Your task to perform on an android device: Go to display settings Image 0: 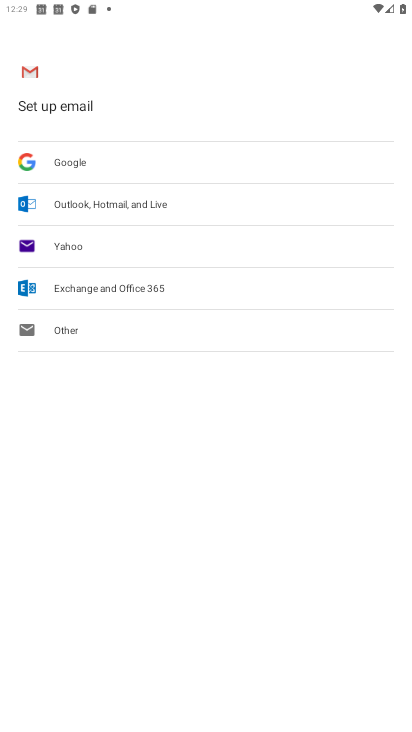
Step 0: press home button
Your task to perform on an android device: Go to display settings Image 1: 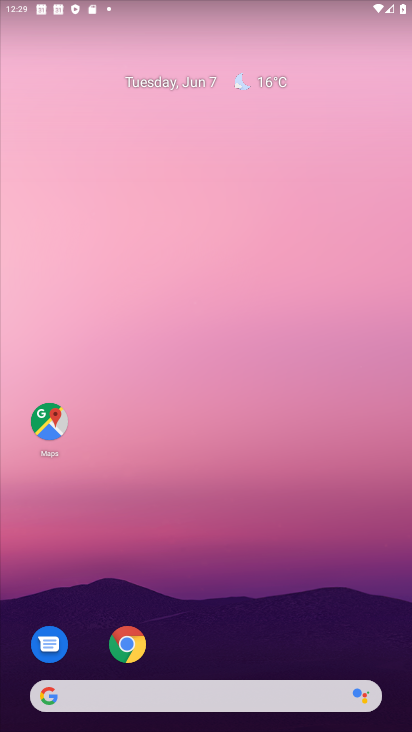
Step 1: drag from (249, 511) to (60, 0)
Your task to perform on an android device: Go to display settings Image 2: 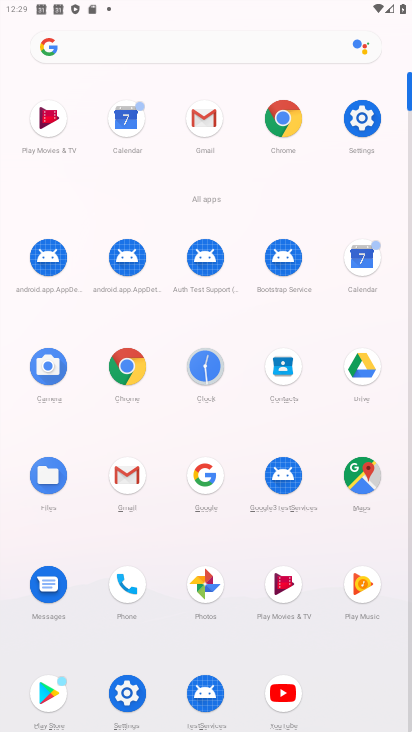
Step 2: click (347, 119)
Your task to perform on an android device: Go to display settings Image 3: 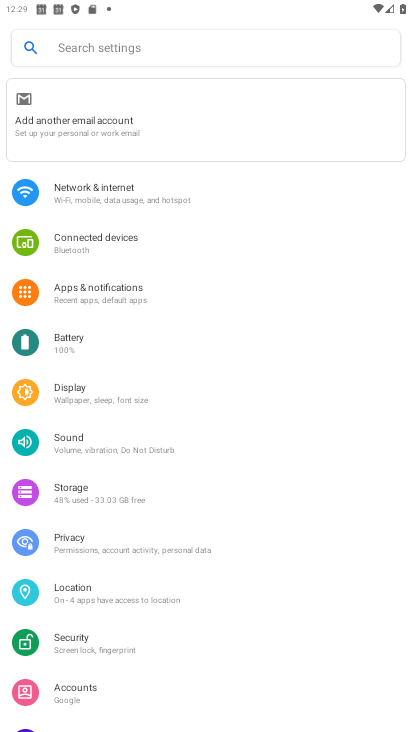
Step 3: click (79, 404)
Your task to perform on an android device: Go to display settings Image 4: 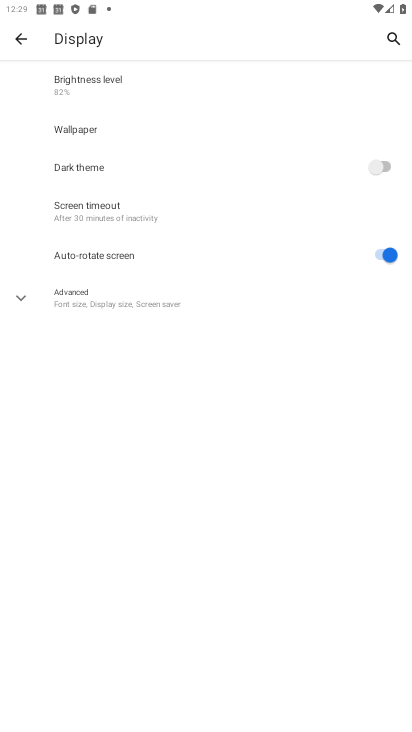
Step 4: task complete